Your task to perform on an android device: choose inbox layout in the gmail app Image 0: 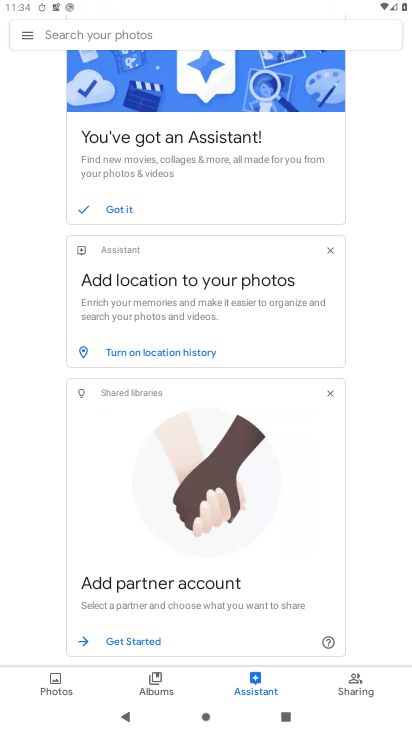
Step 0: press home button
Your task to perform on an android device: choose inbox layout in the gmail app Image 1: 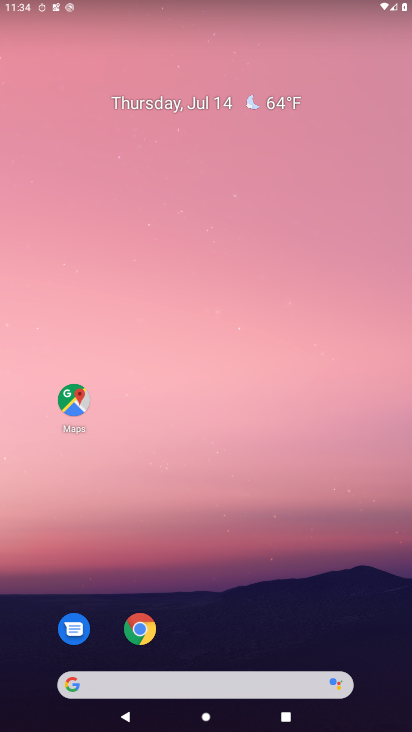
Step 1: click (142, 626)
Your task to perform on an android device: choose inbox layout in the gmail app Image 2: 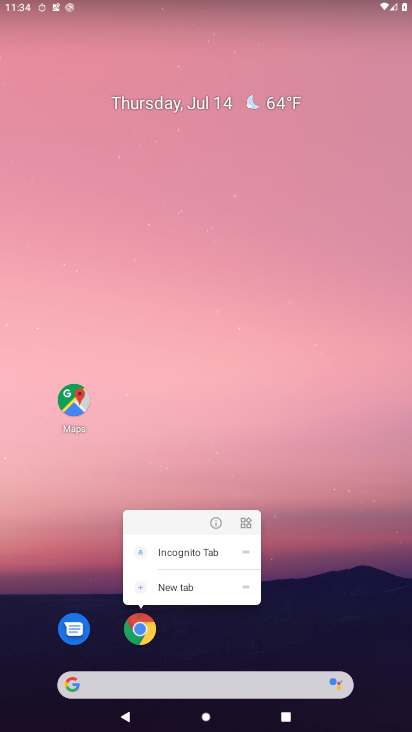
Step 2: drag from (265, 626) to (291, 409)
Your task to perform on an android device: choose inbox layout in the gmail app Image 3: 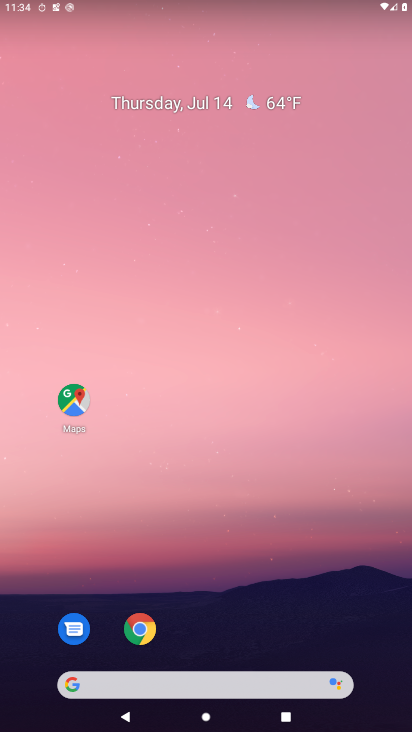
Step 3: drag from (196, 676) to (195, 279)
Your task to perform on an android device: choose inbox layout in the gmail app Image 4: 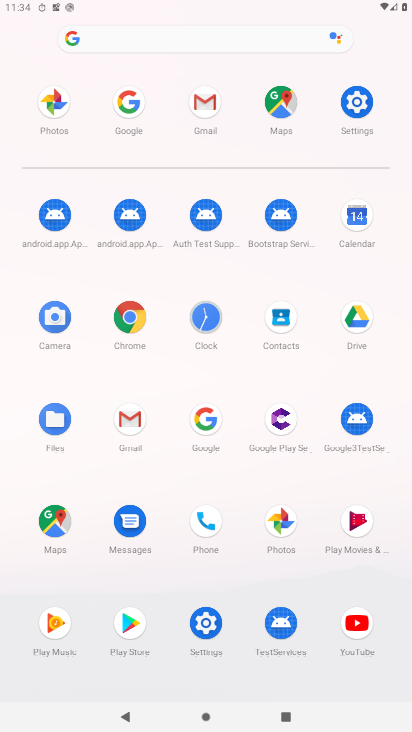
Step 4: click (202, 101)
Your task to perform on an android device: choose inbox layout in the gmail app Image 5: 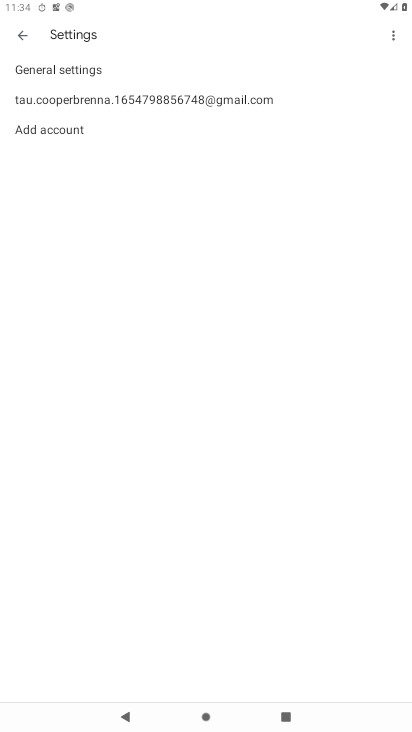
Step 5: click (55, 100)
Your task to perform on an android device: choose inbox layout in the gmail app Image 6: 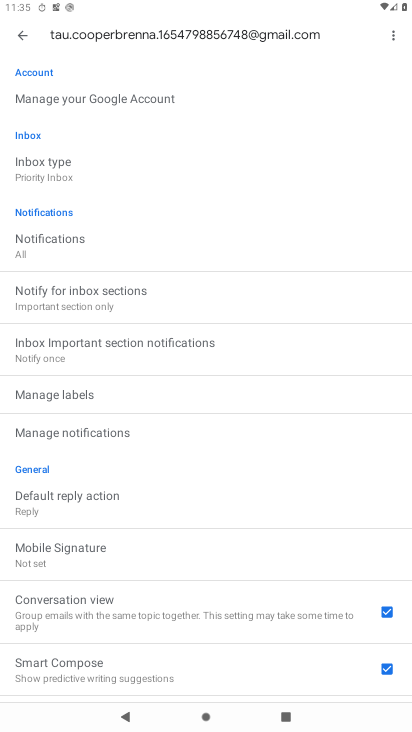
Step 6: click (43, 172)
Your task to perform on an android device: choose inbox layout in the gmail app Image 7: 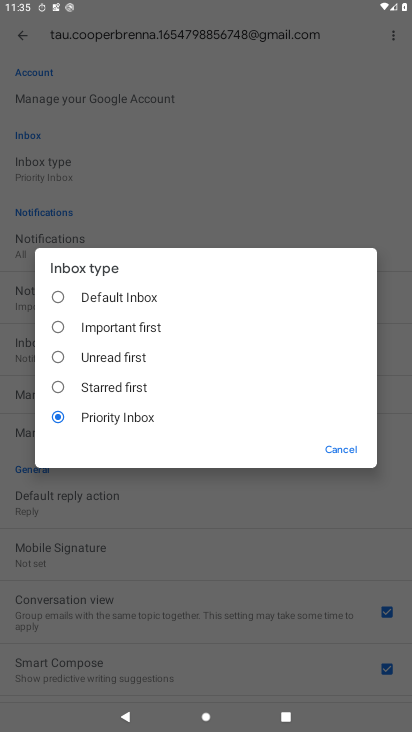
Step 7: click (113, 323)
Your task to perform on an android device: choose inbox layout in the gmail app Image 8: 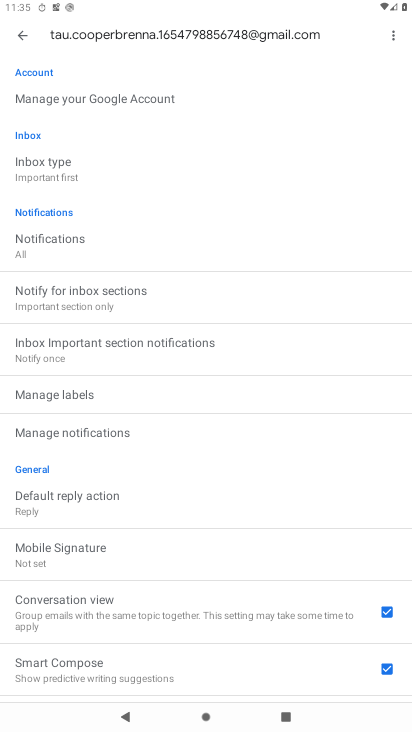
Step 8: task complete